Your task to perform on an android device: Open the calendar and show me this week's events? Image 0: 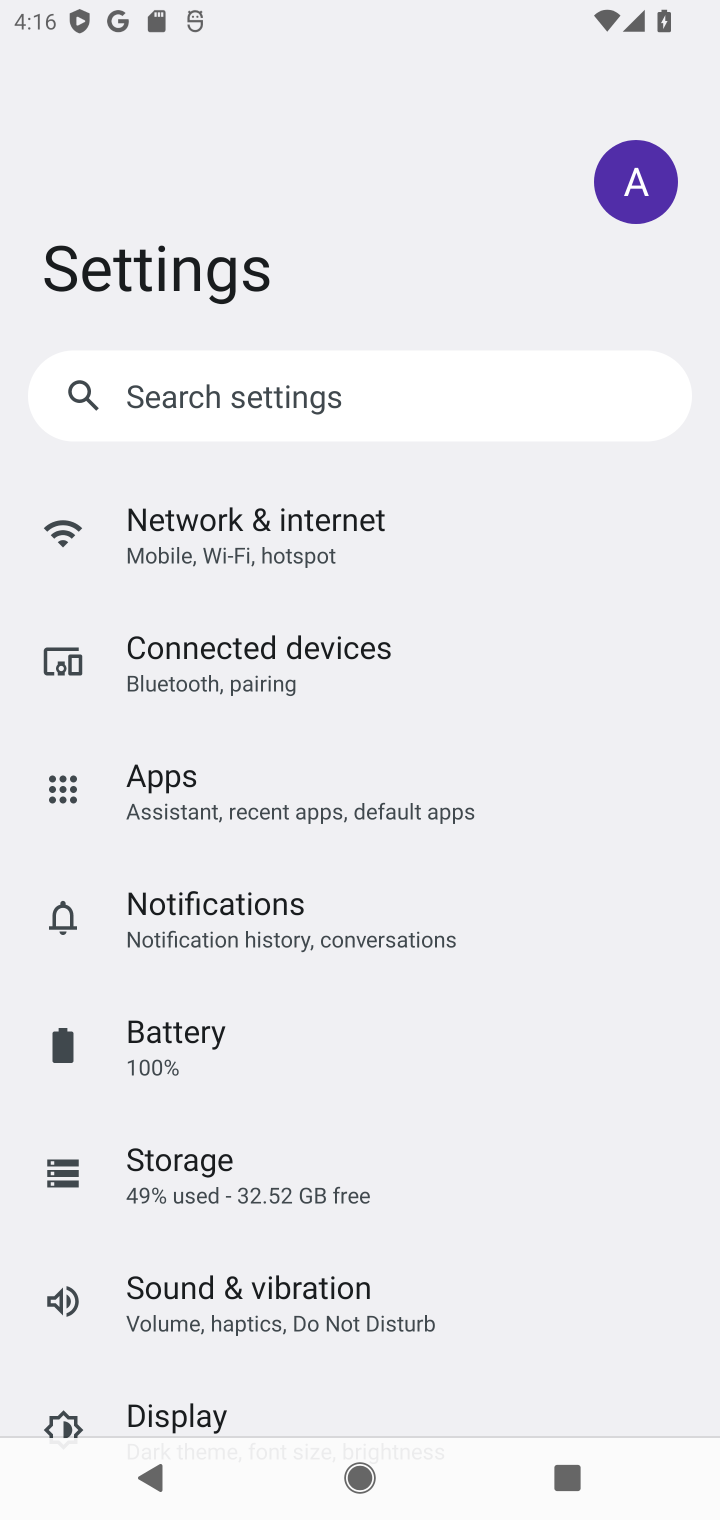
Step 0: press home button
Your task to perform on an android device: Open the calendar and show me this week's events? Image 1: 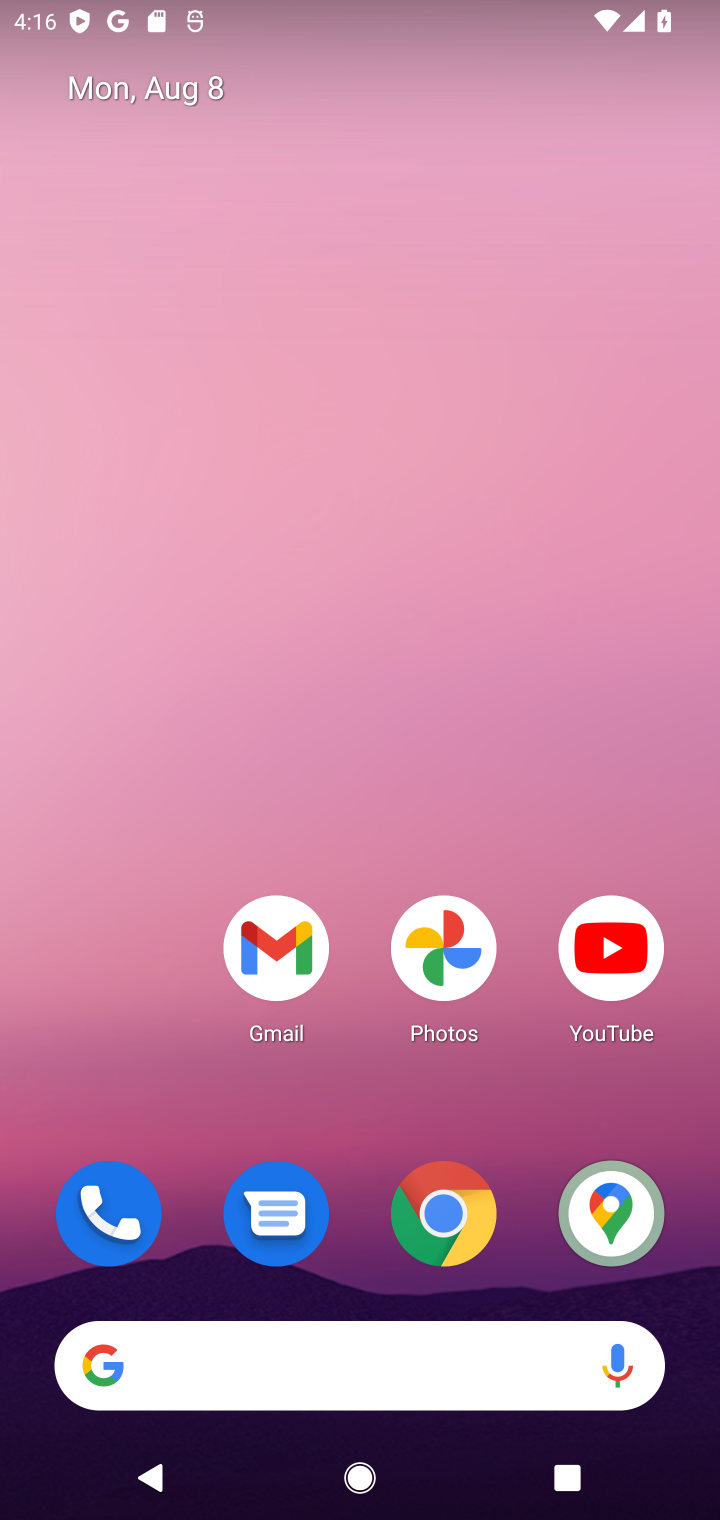
Step 1: drag from (359, 1100) to (520, 0)
Your task to perform on an android device: Open the calendar and show me this week's events? Image 2: 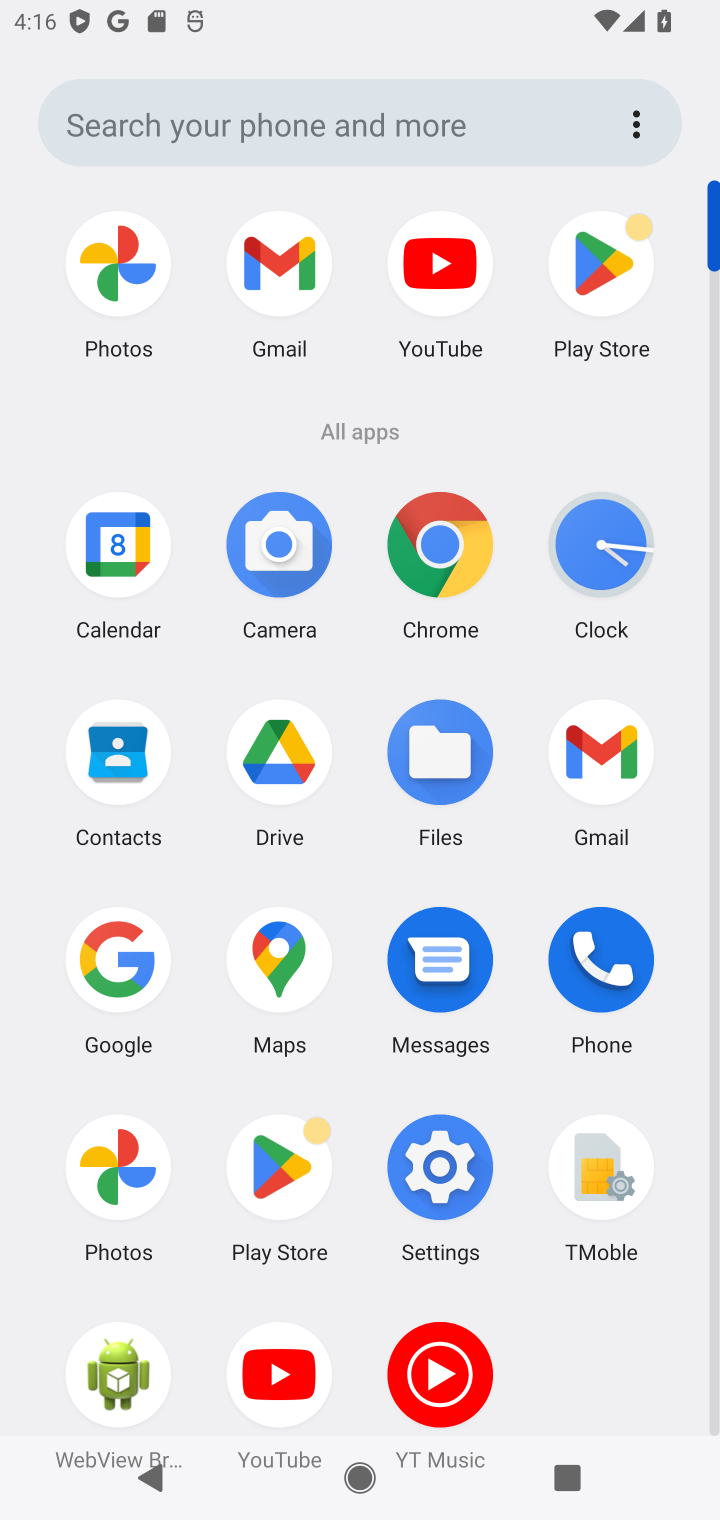
Step 2: click (96, 532)
Your task to perform on an android device: Open the calendar and show me this week's events? Image 3: 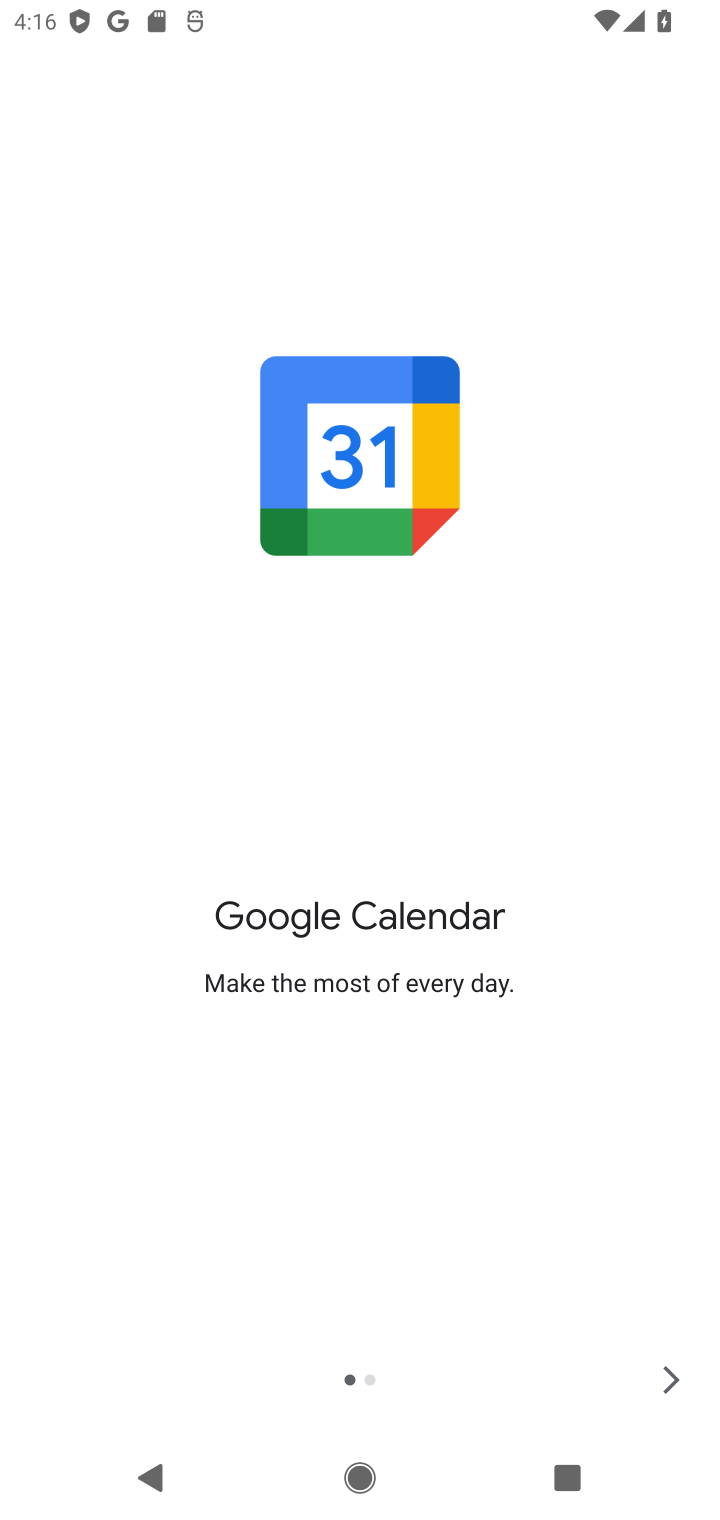
Step 3: click (677, 1370)
Your task to perform on an android device: Open the calendar and show me this week's events? Image 4: 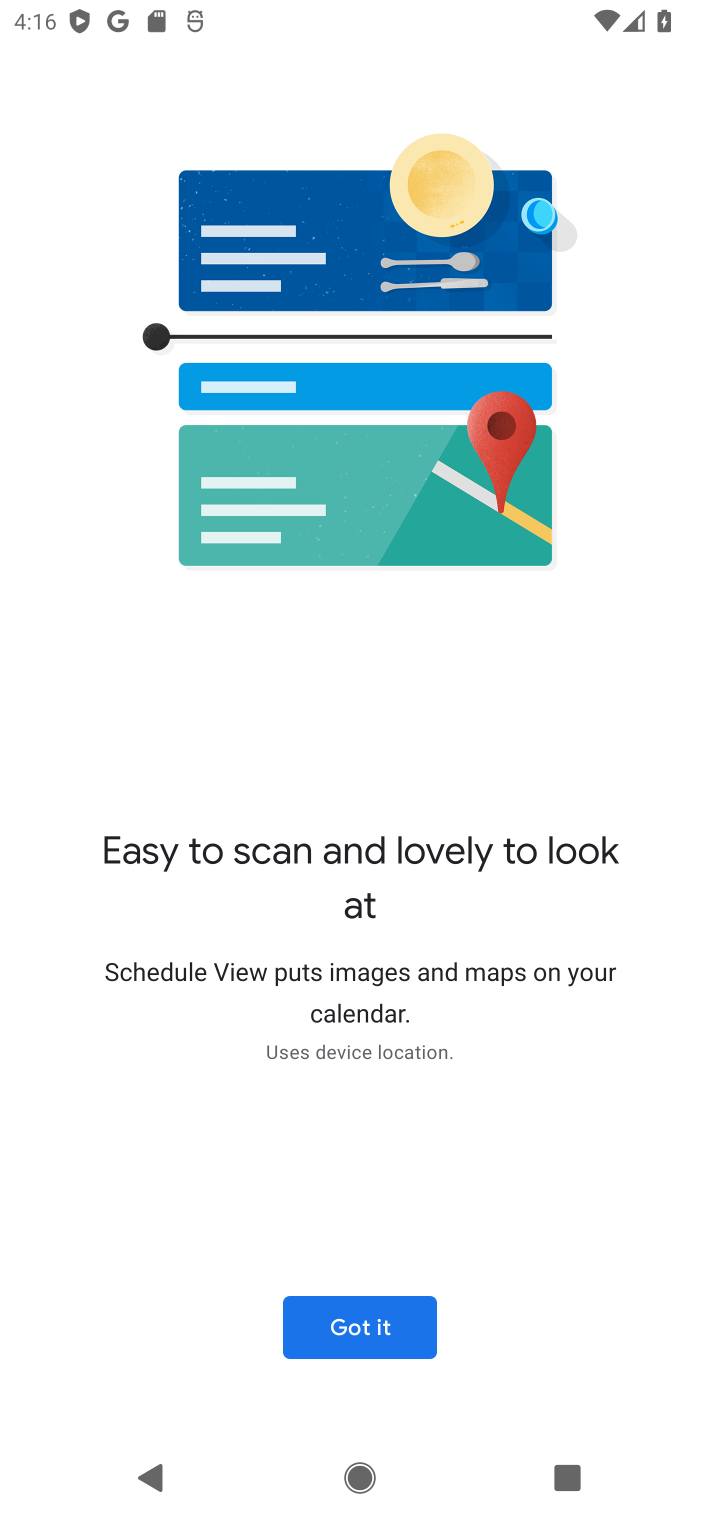
Step 4: click (358, 1346)
Your task to perform on an android device: Open the calendar and show me this week's events? Image 5: 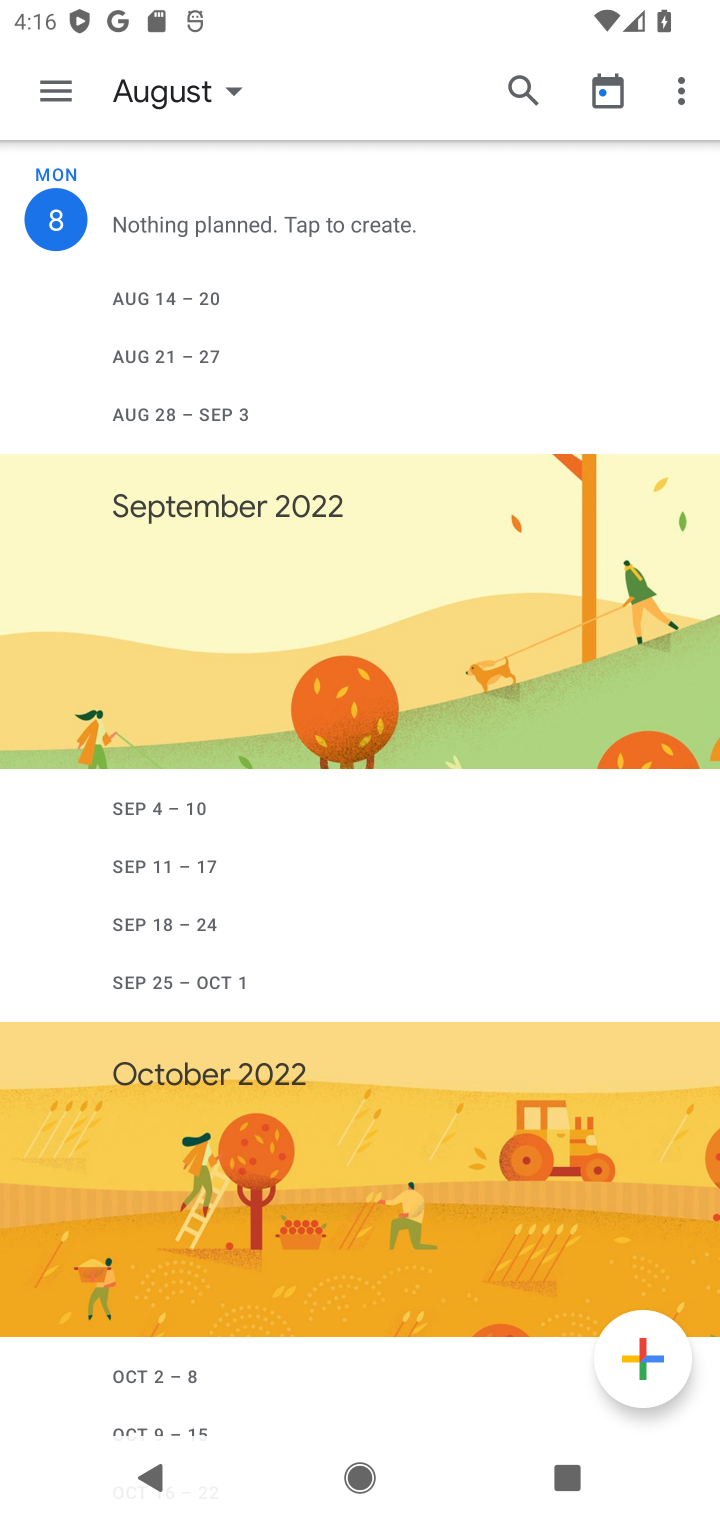
Step 5: click (163, 102)
Your task to perform on an android device: Open the calendar and show me this week's events? Image 6: 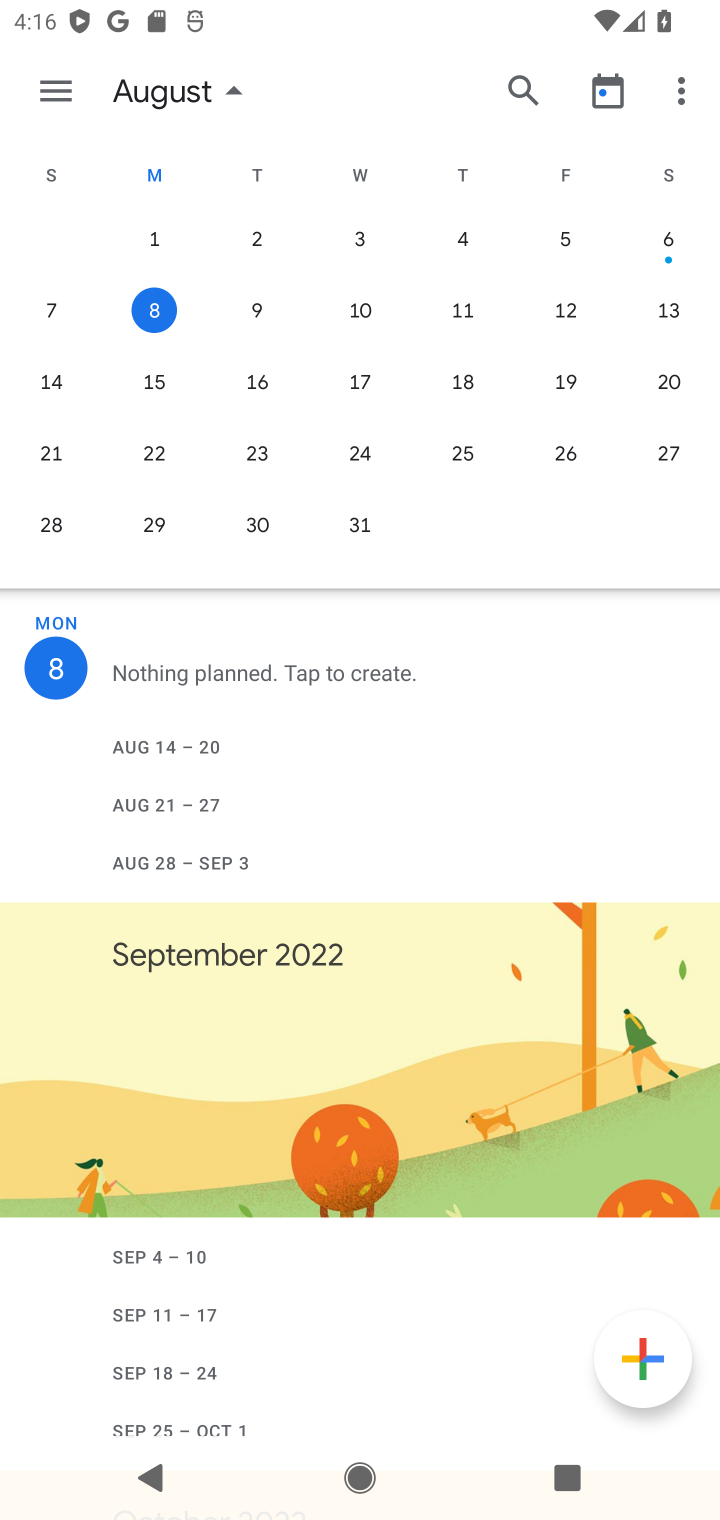
Step 6: click (248, 309)
Your task to perform on an android device: Open the calendar and show me this week's events? Image 7: 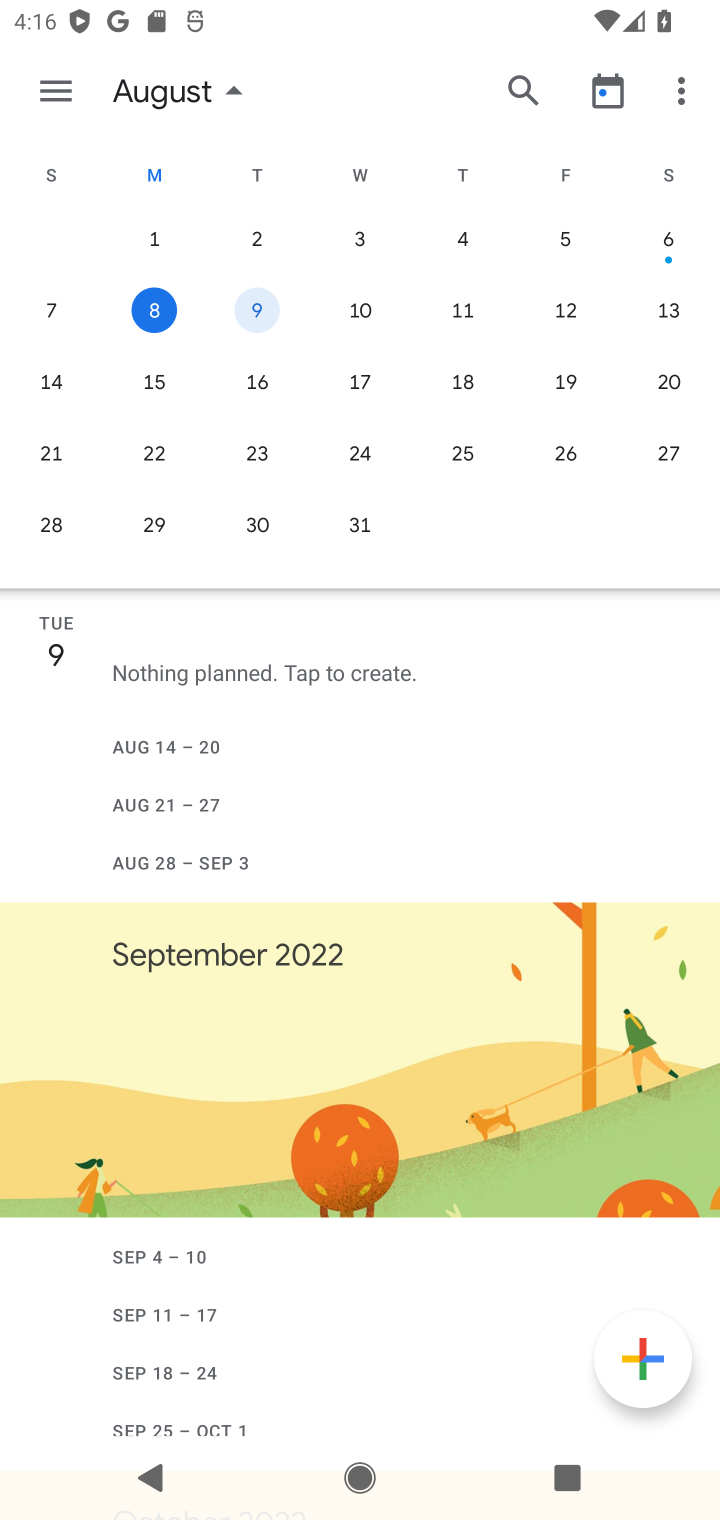
Step 7: click (362, 309)
Your task to perform on an android device: Open the calendar and show me this week's events? Image 8: 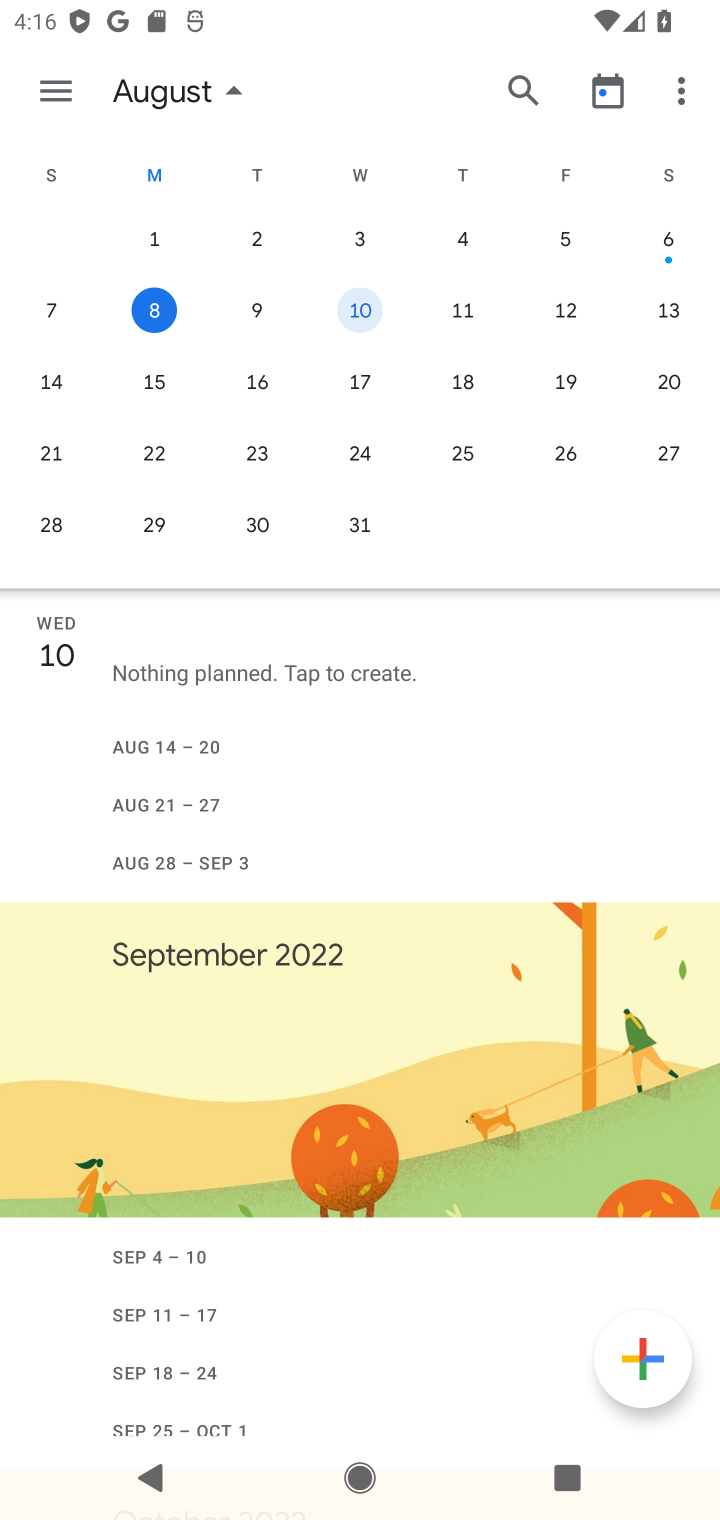
Step 8: click (451, 309)
Your task to perform on an android device: Open the calendar and show me this week's events? Image 9: 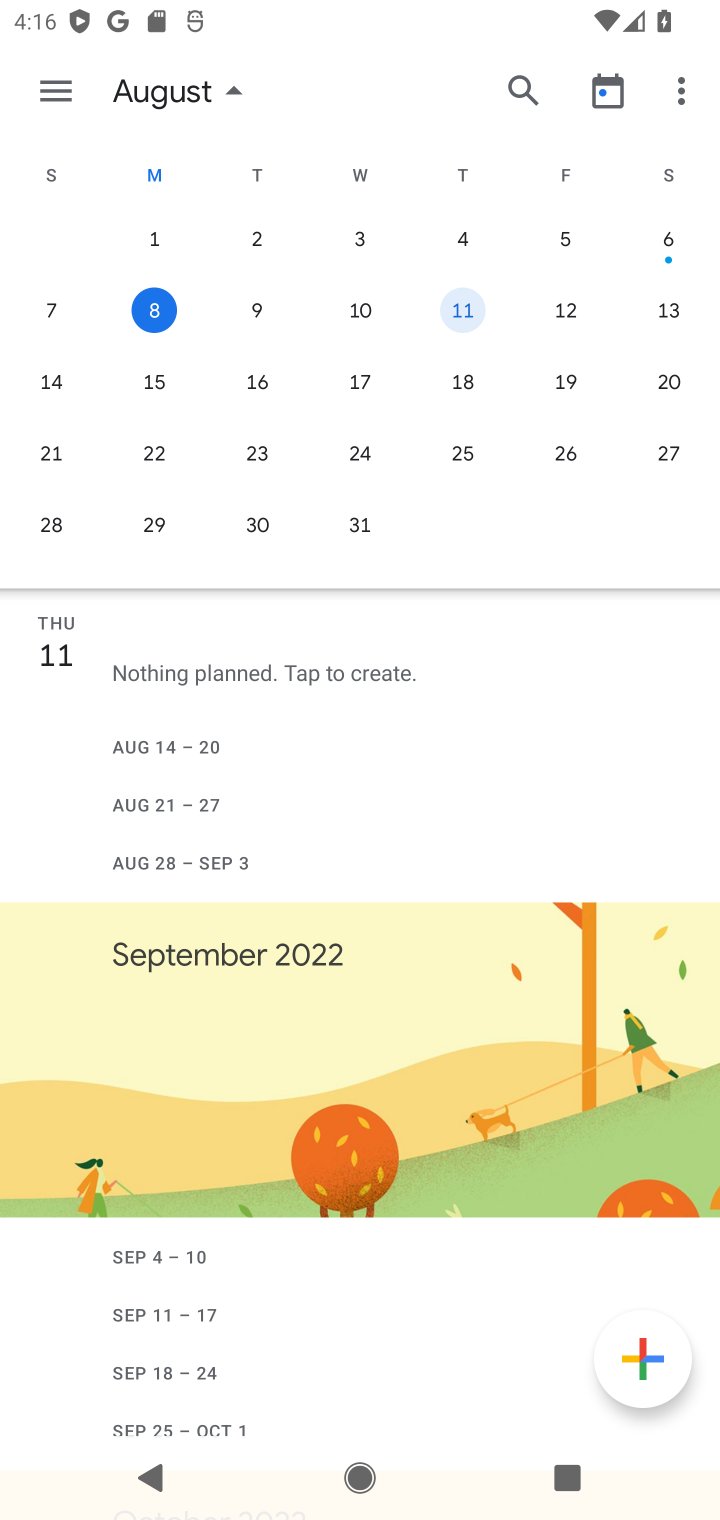
Step 9: click (567, 309)
Your task to perform on an android device: Open the calendar and show me this week's events? Image 10: 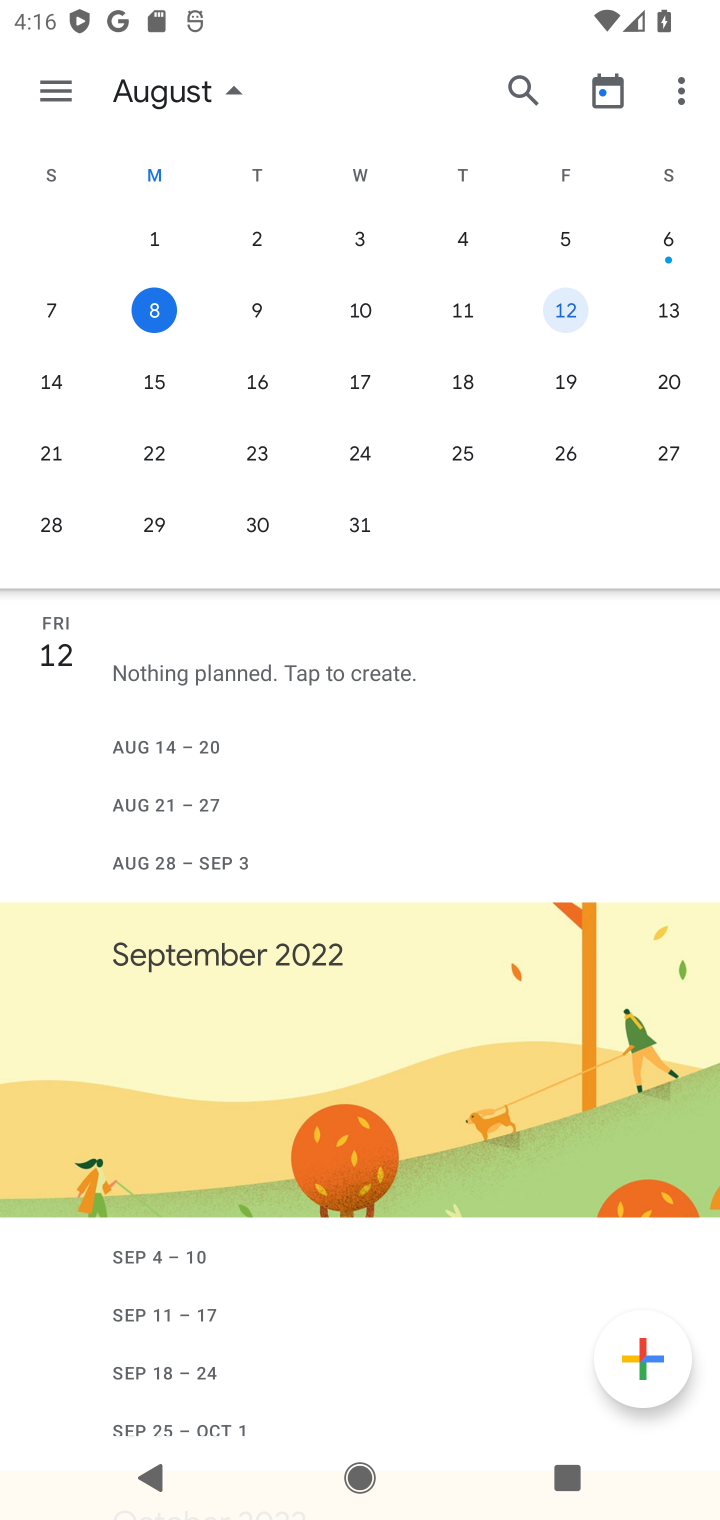
Step 10: click (670, 309)
Your task to perform on an android device: Open the calendar and show me this week's events? Image 11: 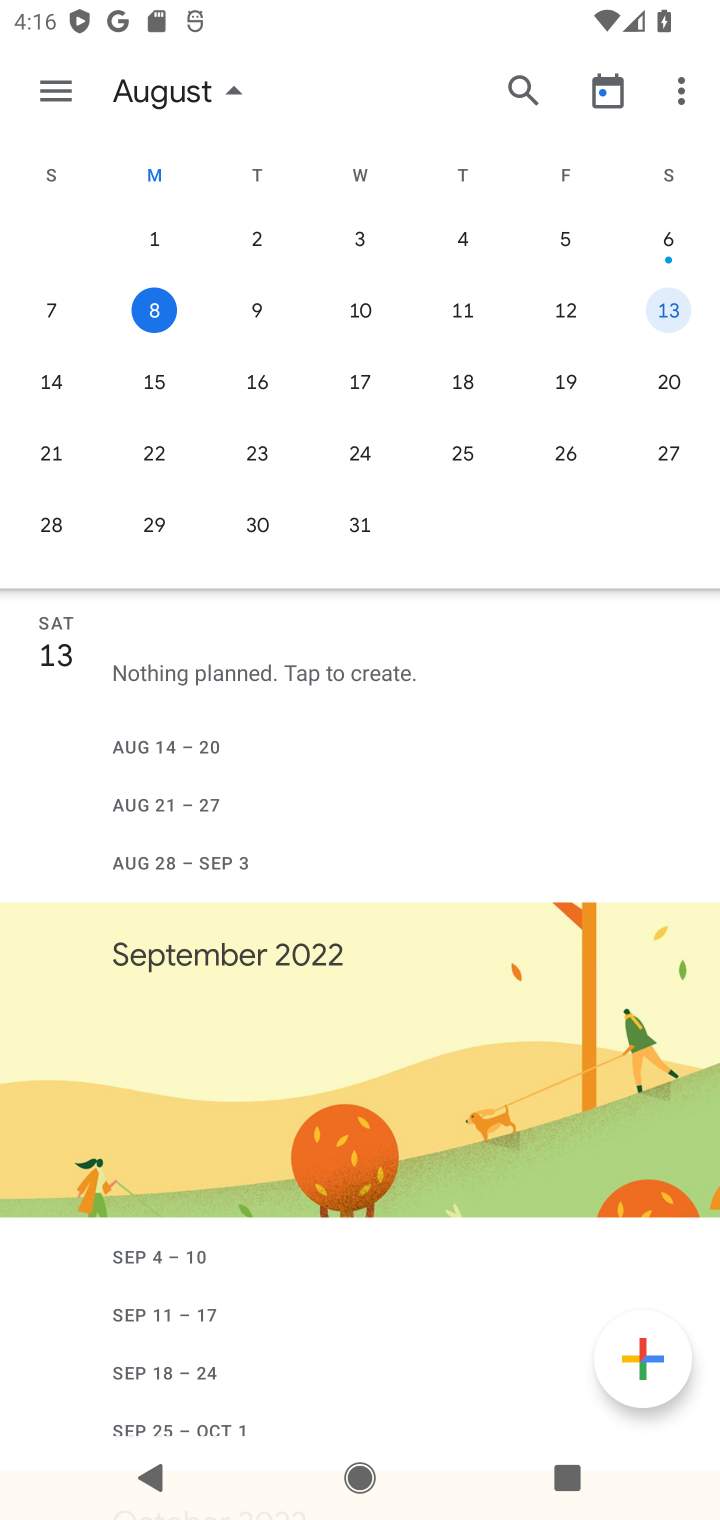
Step 11: task complete